Your task to perform on an android device: open device folders in google photos Image 0: 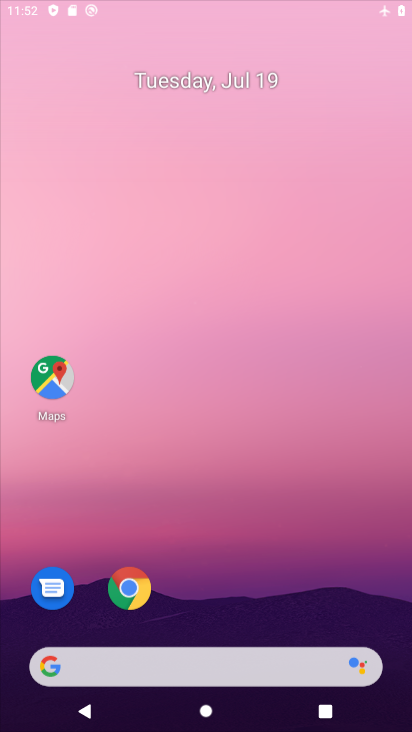
Step 0: drag from (213, 423) to (193, 288)
Your task to perform on an android device: open device folders in google photos Image 1: 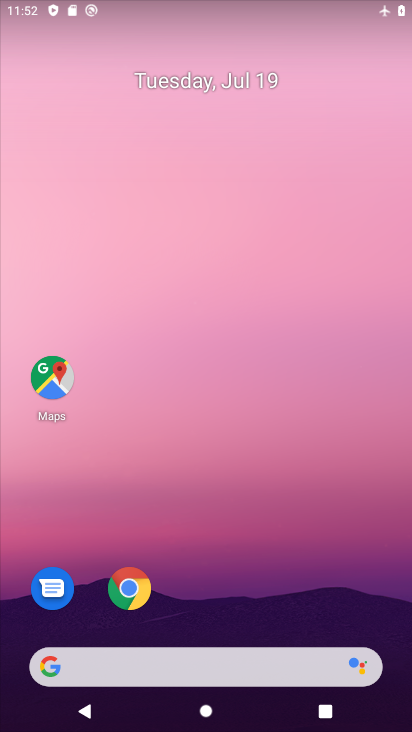
Step 1: click (131, 597)
Your task to perform on an android device: open device folders in google photos Image 2: 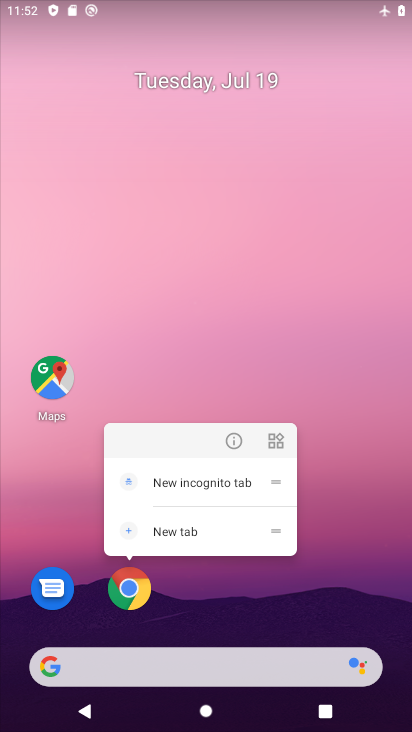
Step 2: click (129, 578)
Your task to perform on an android device: open device folders in google photos Image 3: 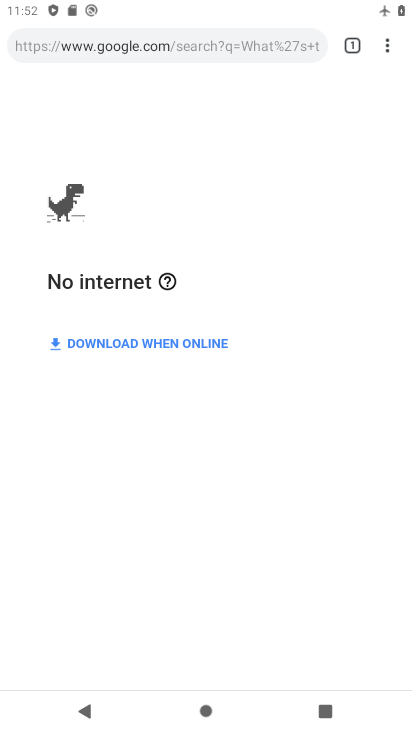
Step 3: click (384, 37)
Your task to perform on an android device: open device folders in google photos Image 4: 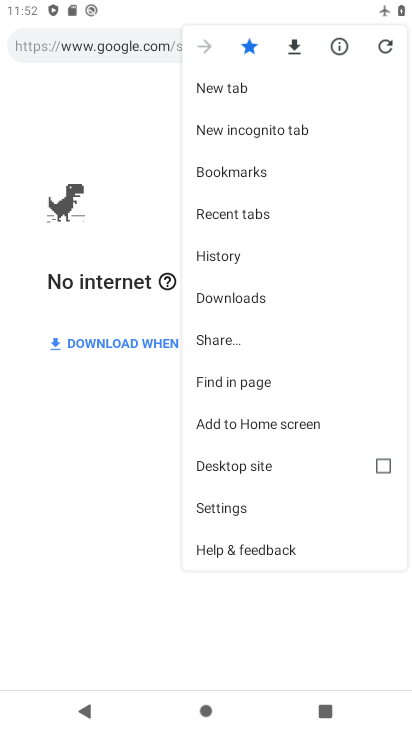
Step 4: click (234, 501)
Your task to perform on an android device: open device folders in google photos Image 5: 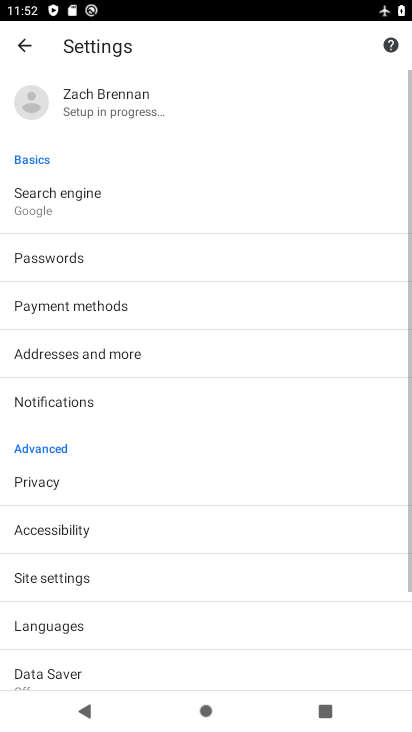
Step 5: press home button
Your task to perform on an android device: open device folders in google photos Image 6: 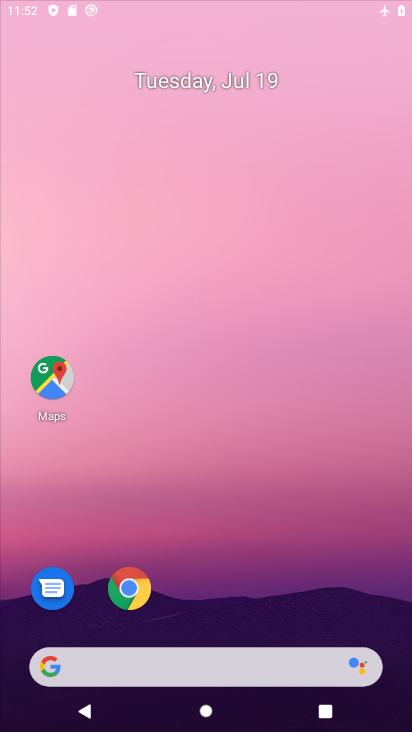
Step 6: drag from (158, 271) to (265, 257)
Your task to perform on an android device: open device folders in google photos Image 7: 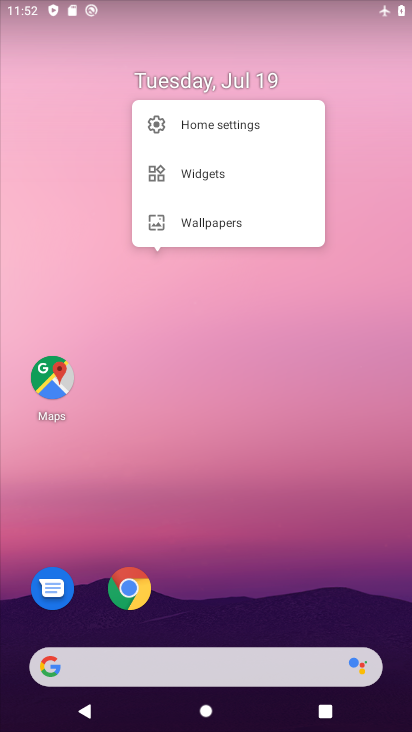
Step 7: click (215, 612)
Your task to perform on an android device: open device folders in google photos Image 8: 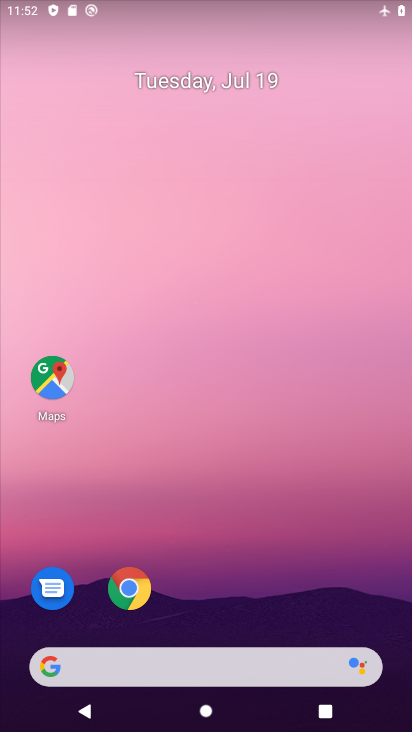
Step 8: drag from (238, 665) to (248, 174)
Your task to perform on an android device: open device folders in google photos Image 9: 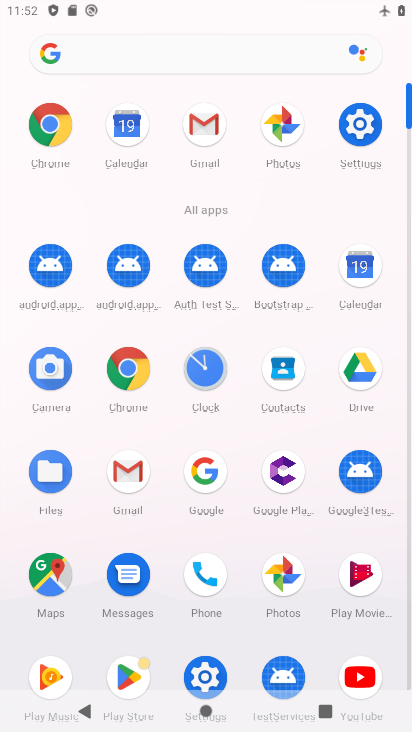
Step 9: click (286, 573)
Your task to perform on an android device: open device folders in google photos Image 10: 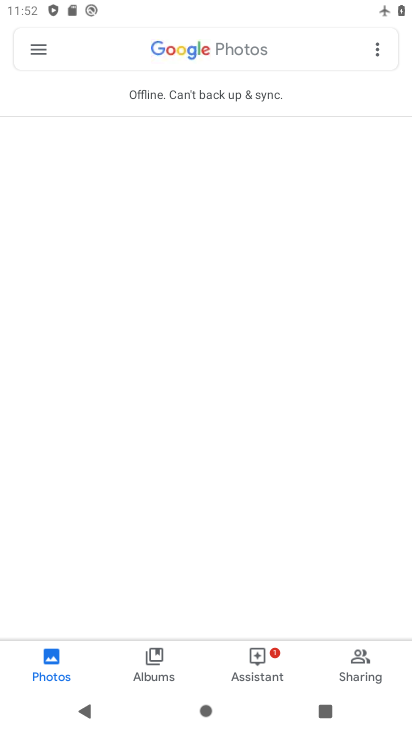
Step 10: click (166, 654)
Your task to perform on an android device: open device folders in google photos Image 11: 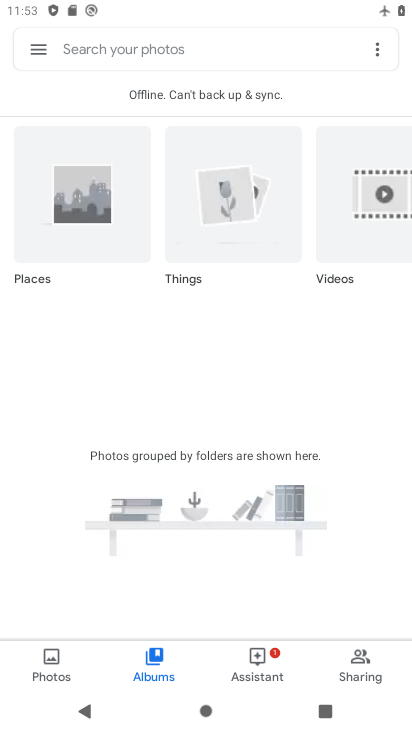
Step 11: task complete